Your task to perform on an android device: turn off improve location accuracy Image 0: 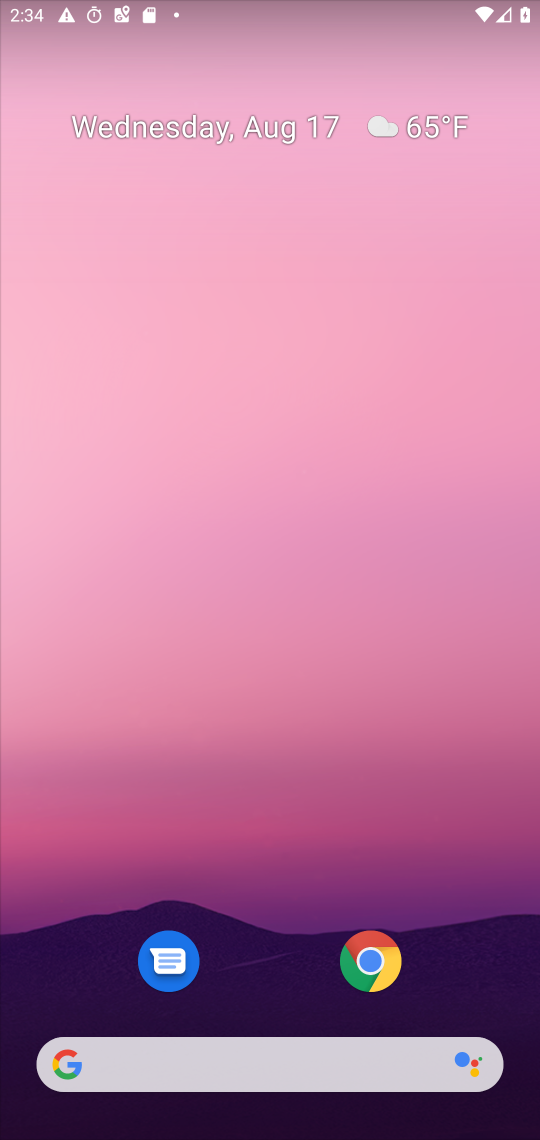
Step 0: drag from (245, 1104) to (371, 359)
Your task to perform on an android device: turn off improve location accuracy Image 1: 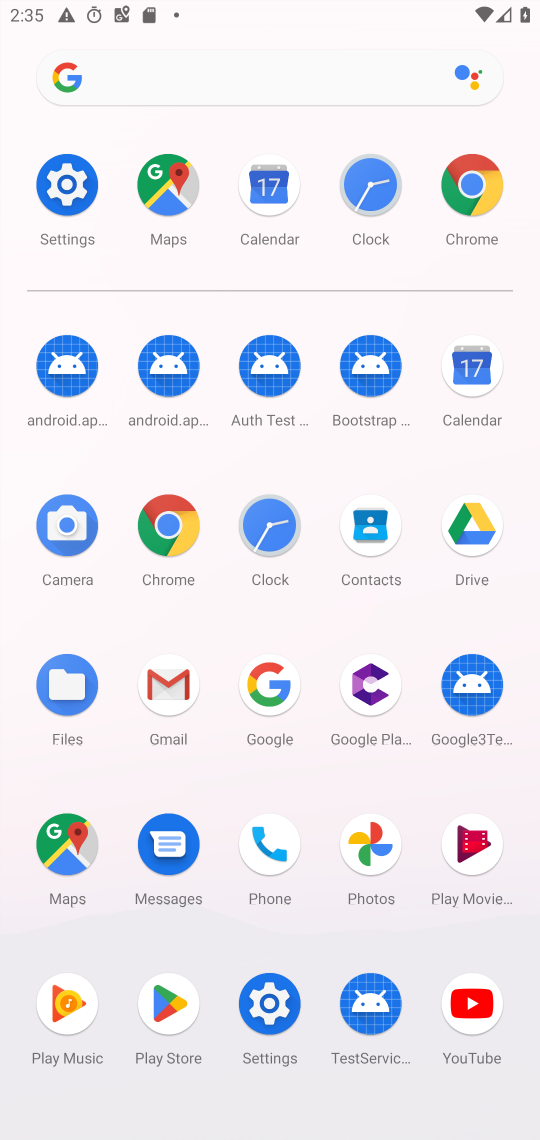
Step 1: click (281, 996)
Your task to perform on an android device: turn off improve location accuracy Image 2: 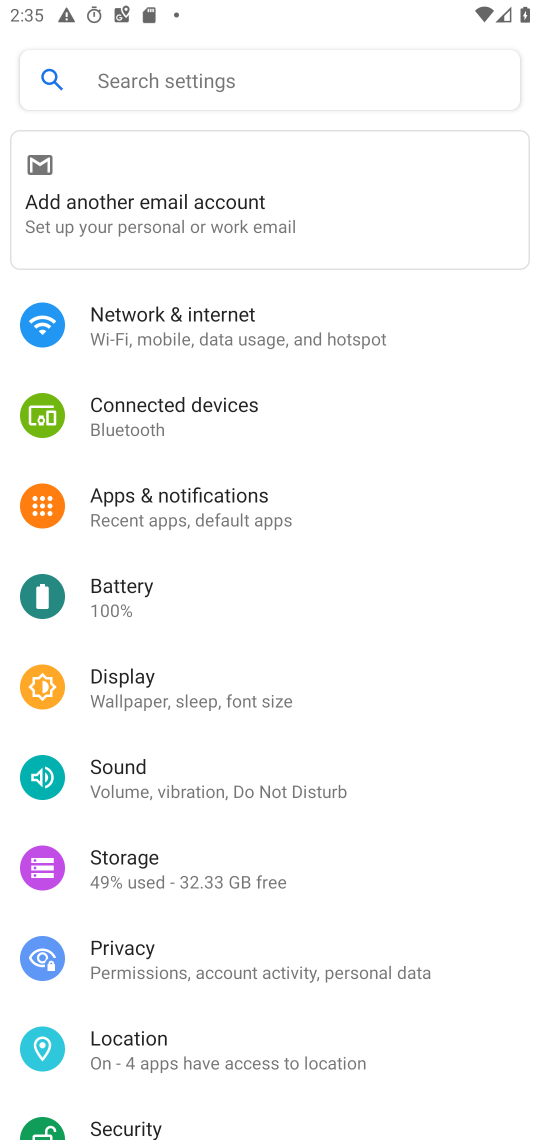
Step 2: click (227, 1051)
Your task to perform on an android device: turn off improve location accuracy Image 3: 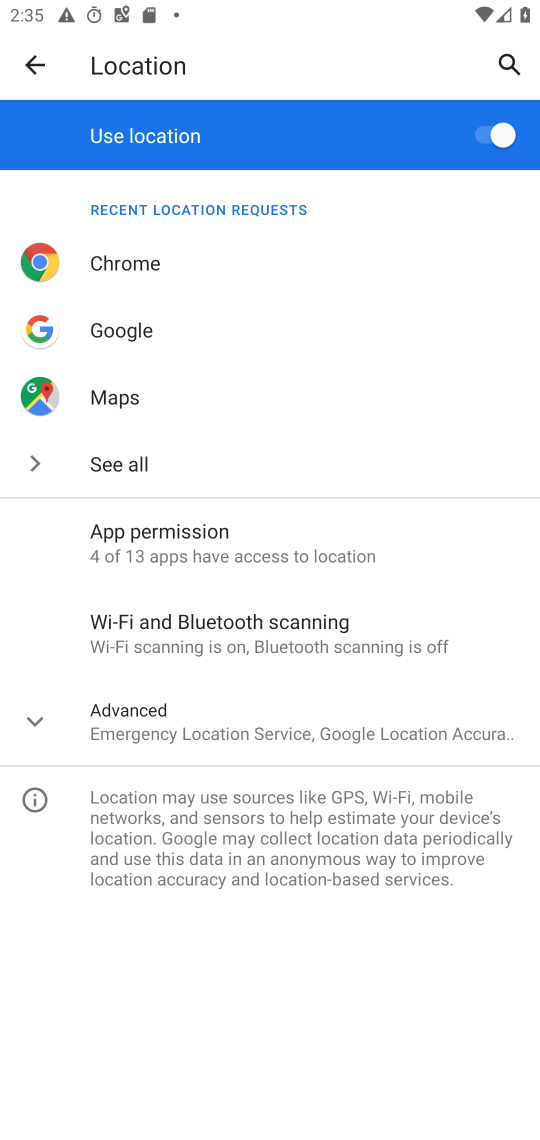
Step 3: click (235, 721)
Your task to perform on an android device: turn off improve location accuracy Image 4: 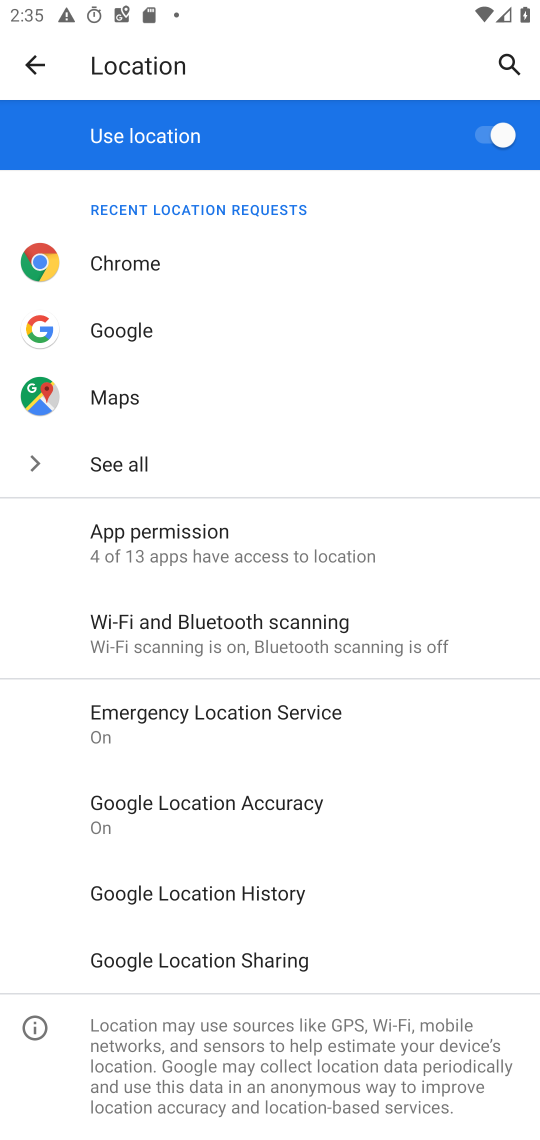
Step 4: click (307, 811)
Your task to perform on an android device: turn off improve location accuracy Image 5: 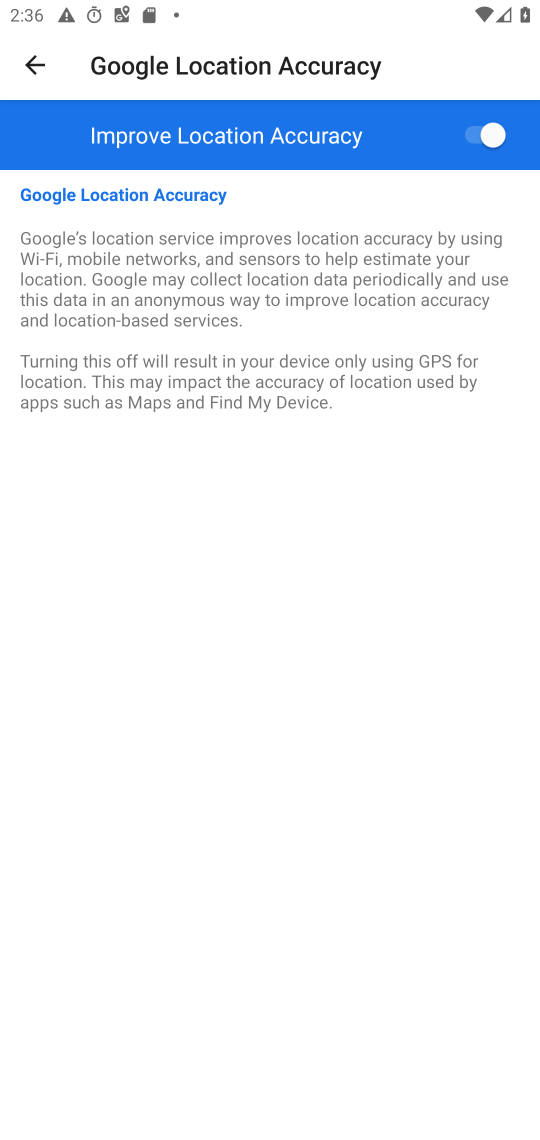
Step 5: click (480, 129)
Your task to perform on an android device: turn off improve location accuracy Image 6: 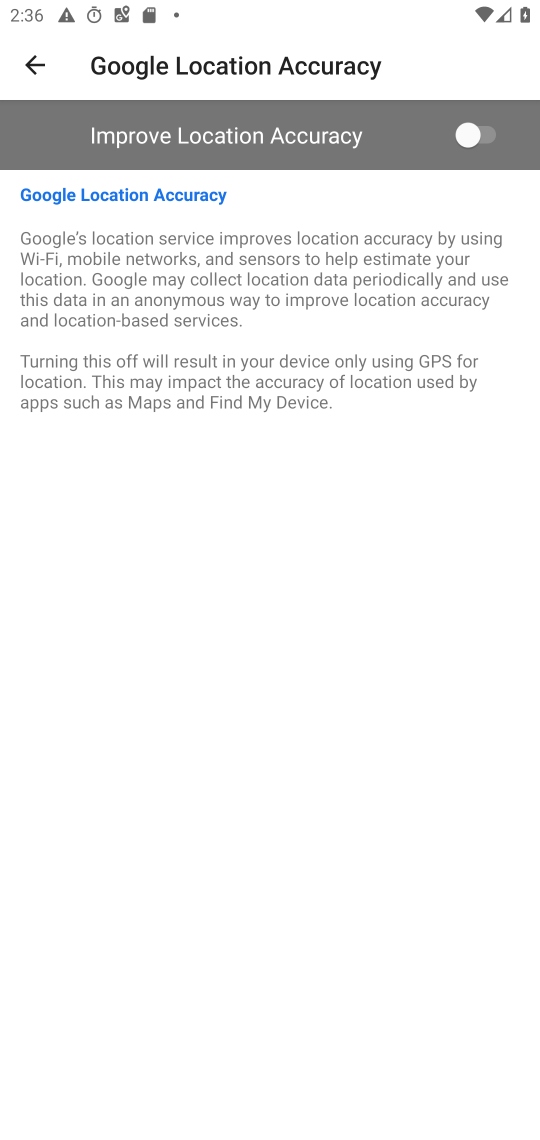
Step 6: task complete